Your task to perform on an android device: Go to eBay Image 0: 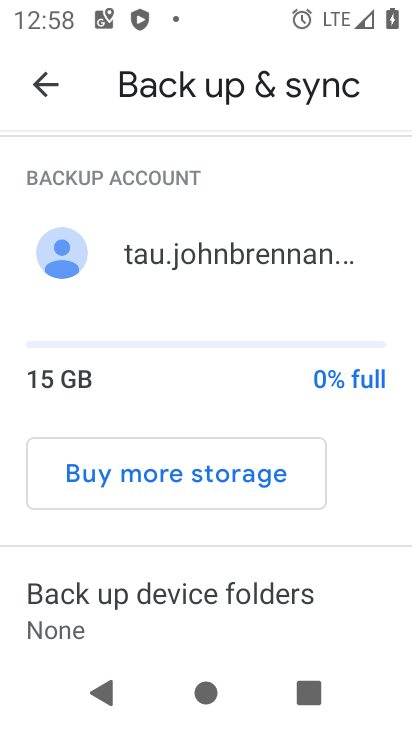
Step 0: press home button
Your task to perform on an android device: Go to eBay Image 1: 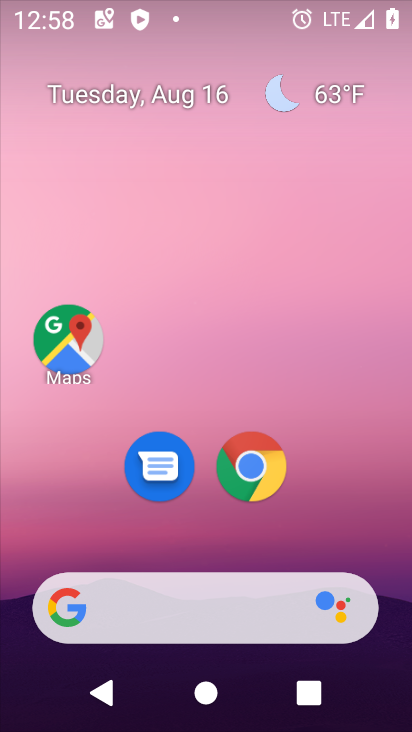
Step 1: drag from (129, 609) to (177, 216)
Your task to perform on an android device: Go to eBay Image 2: 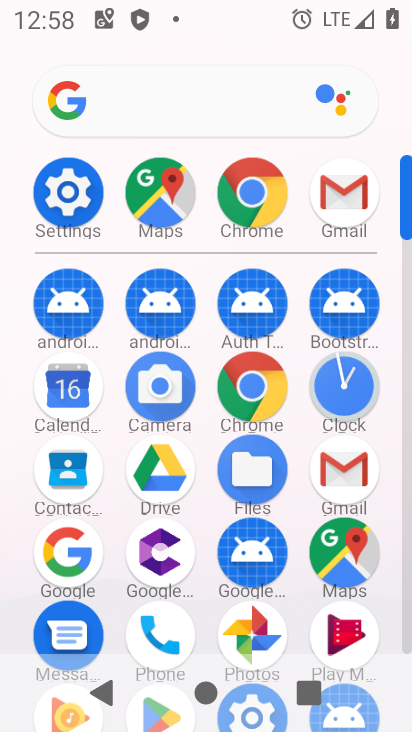
Step 2: click (226, 377)
Your task to perform on an android device: Go to eBay Image 3: 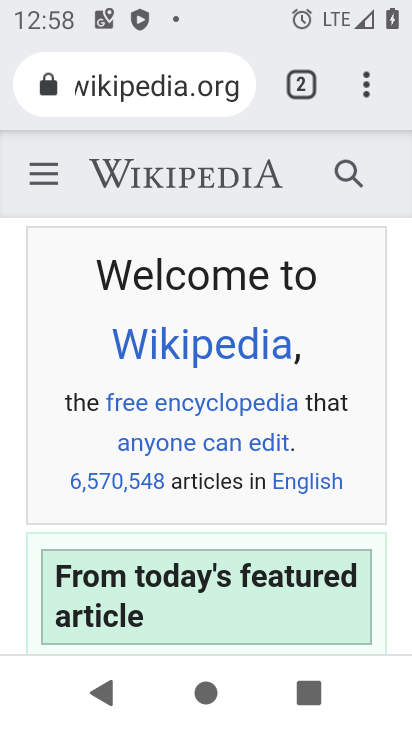
Step 3: click (357, 77)
Your task to perform on an android device: Go to eBay Image 4: 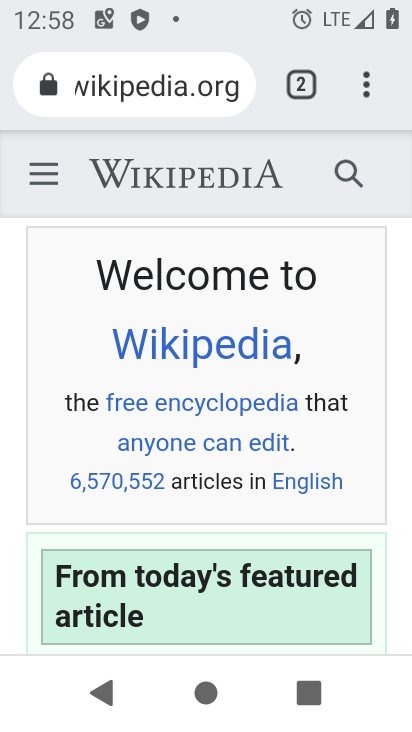
Step 4: click (364, 85)
Your task to perform on an android device: Go to eBay Image 5: 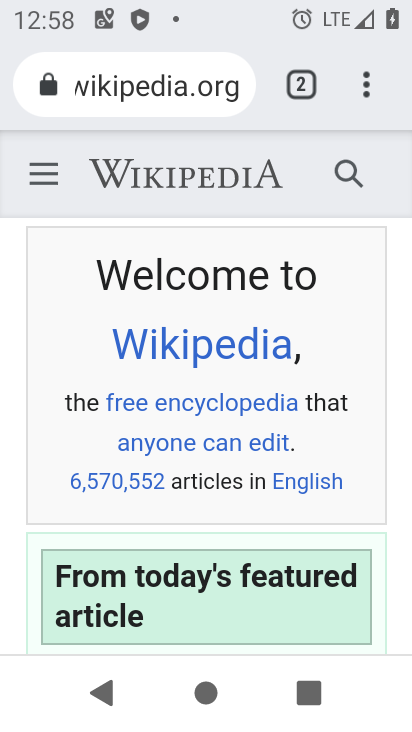
Step 5: click (373, 85)
Your task to perform on an android device: Go to eBay Image 6: 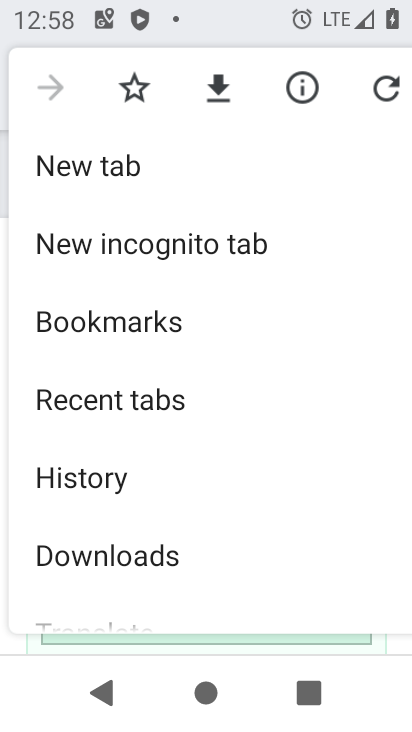
Step 6: click (63, 148)
Your task to perform on an android device: Go to eBay Image 7: 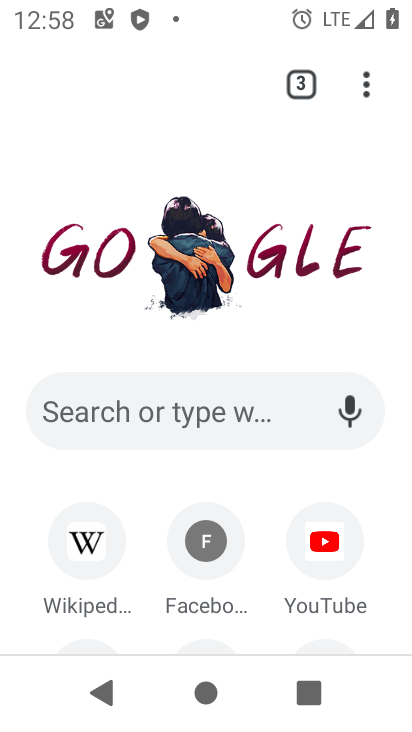
Step 7: drag from (298, 593) to (294, 353)
Your task to perform on an android device: Go to eBay Image 8: 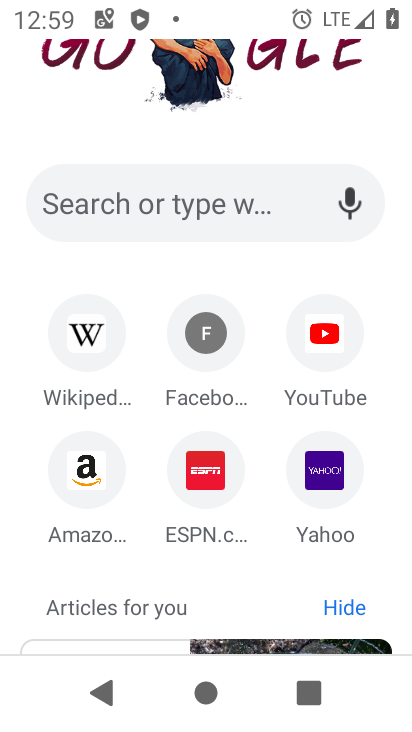
Step 8: click (214, 212)
Your task to perform on an android device: Go to eBay Image 9: 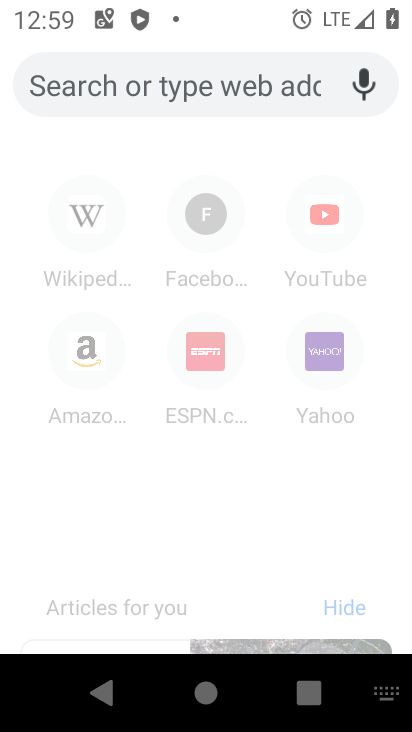
Step 9: type "eBay "
Your task to perform on an android device: Go to eBay Image 10: 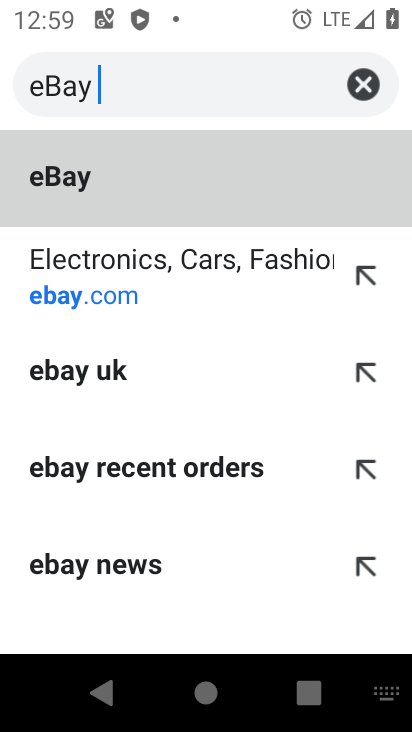
Step 10: click (130, 83)
Your task to perform on an android device: Go to eBay Image 11: 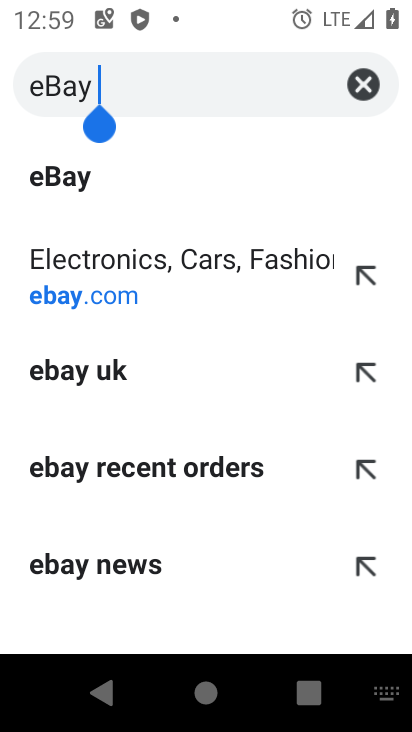
Step 11: click (128, 179)
Your task to perform on an android device: Go to eBay Image 12: 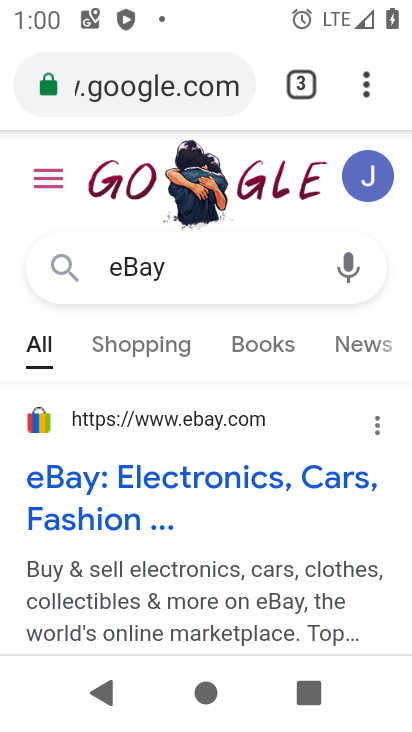
Step 12: task complete